Your task to perform on an android device: Go to Reddit.com Image 0: 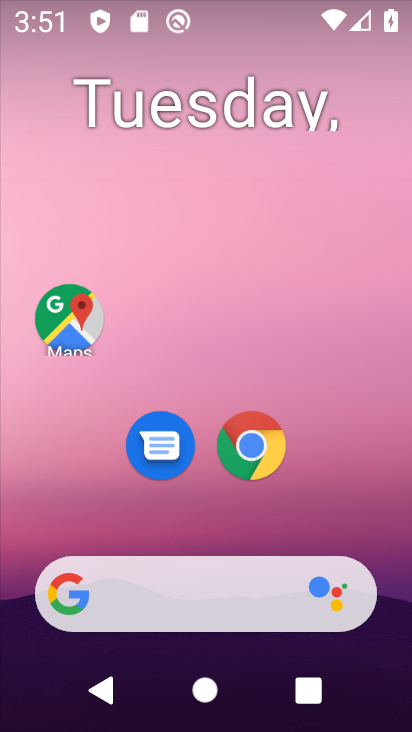
Step 0: click (287, 464)
Your task to perform on an android device: Go to Reddit.com Image 1: 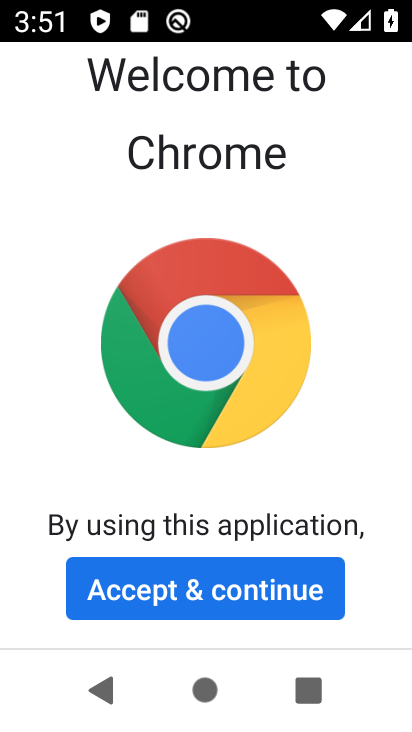
Step 1: click (278, 588)
Your task to perform on an android device: Go to Reddit.com Image 2: 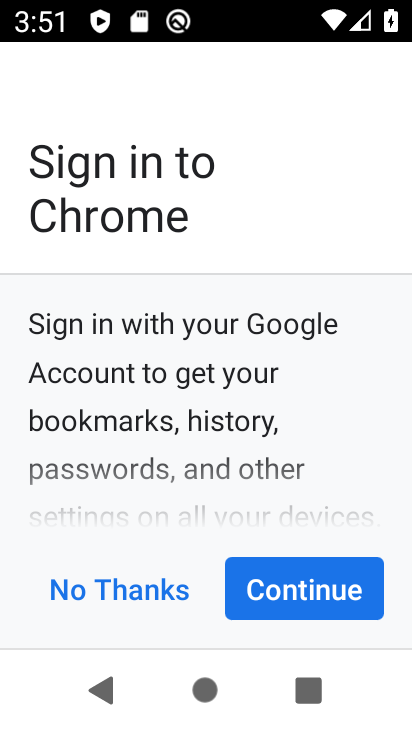
Step 2: click (264, 584)
Your task to perform on an android device: Go to Reddit.com Image 3: 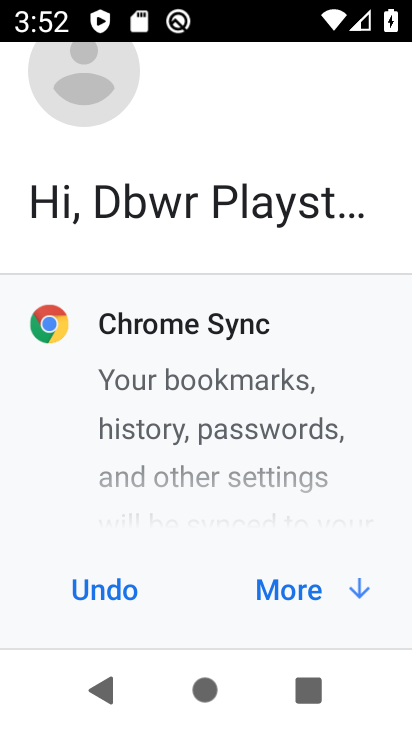
Step 3: click (330, 594)
Your task to perform on an android device: Go to Reddit.com Image 4: 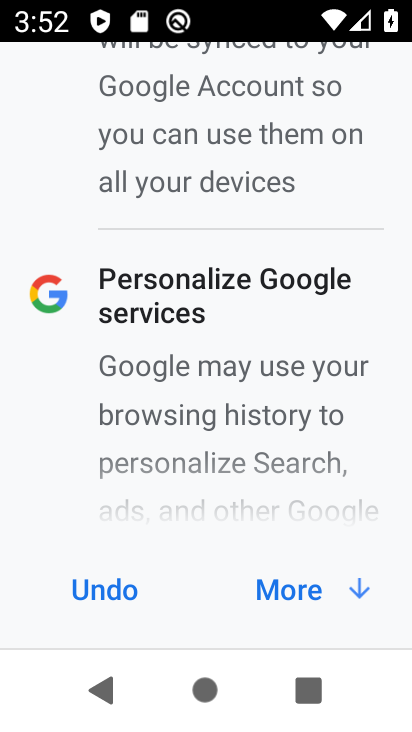
Step 4: click (316, 592)
Your task to perform on an android device: Go to Reddit.com Image 5: 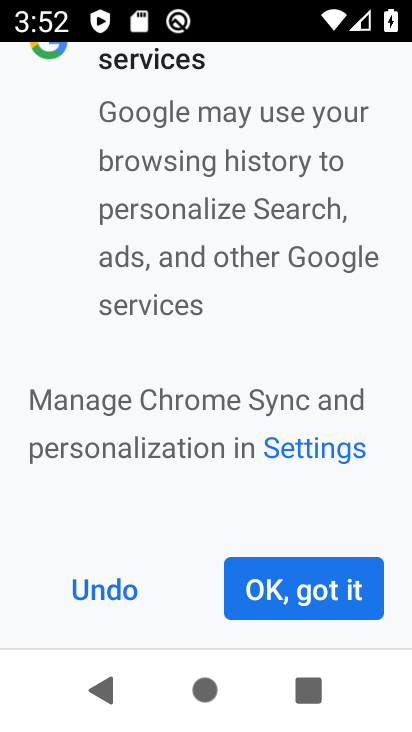
Step 5: click (303, 593)
Your task to perform on an android device: Go to Reddit.com Image 6: 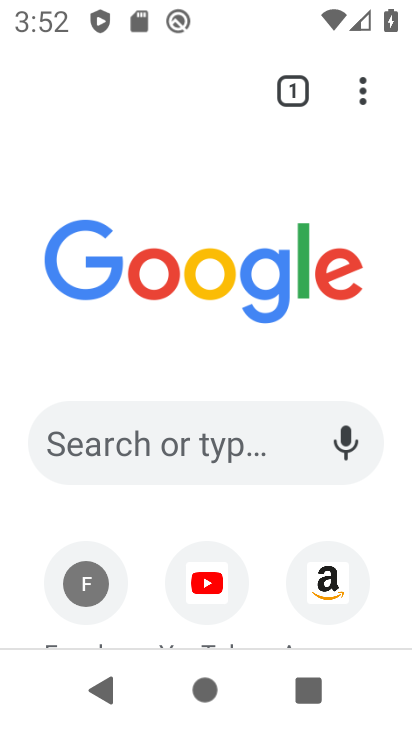
Step 6: click (225, 474)
Your task to perform on an android device: Go to Reddit.com Image 7: 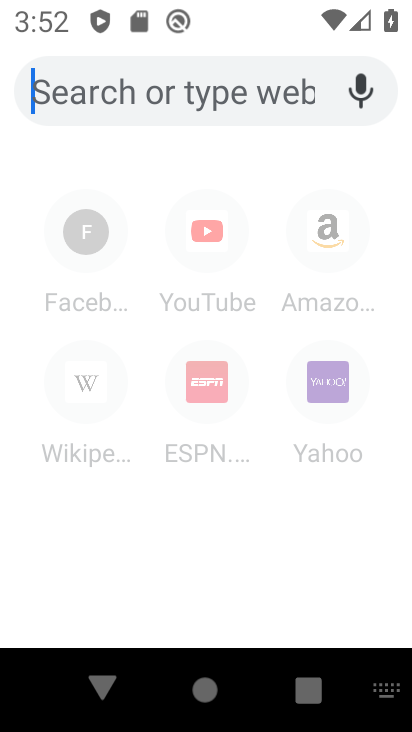
Step 7: type "reddit.com"
Your task to perform on an android device: Go to Reddit.com Image 8: 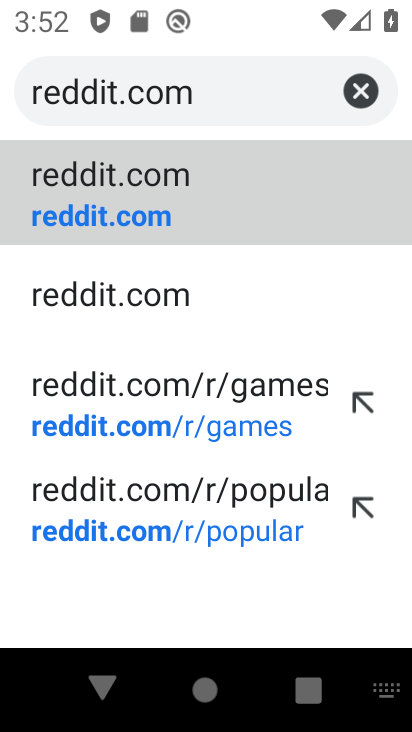
Step 8: click (140, 215)
Your task to perform on an android device: Go to Reddit.com Image 9: 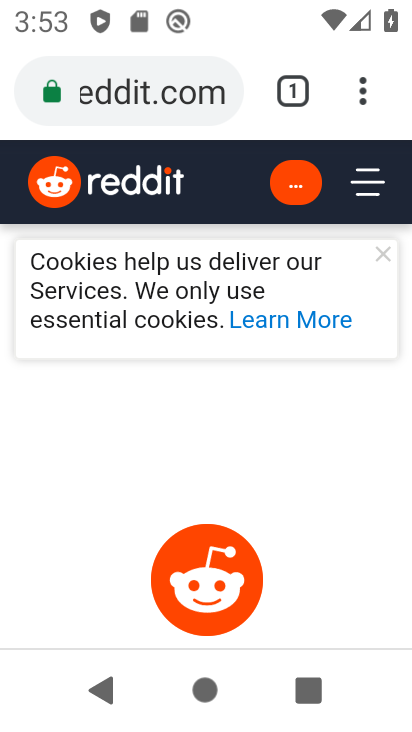
Step 9: task complete